Your task to perform on an android device: turn off notifications in google photos Image 0: 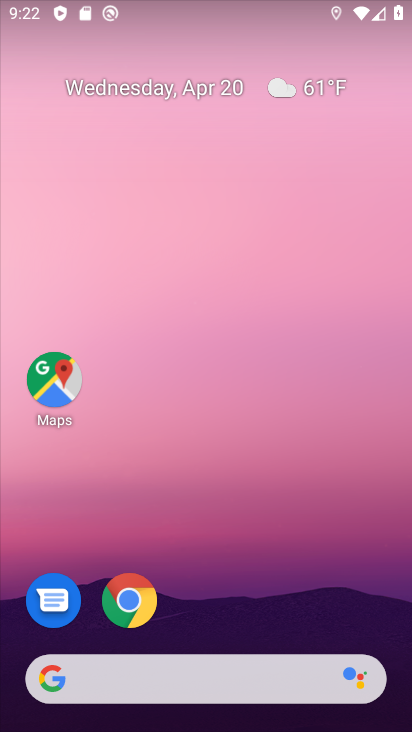
Step 0: drag from (365, 599) to (389, 16)
Your task to perform on an android device: turn off notifications in google photos Image 1: 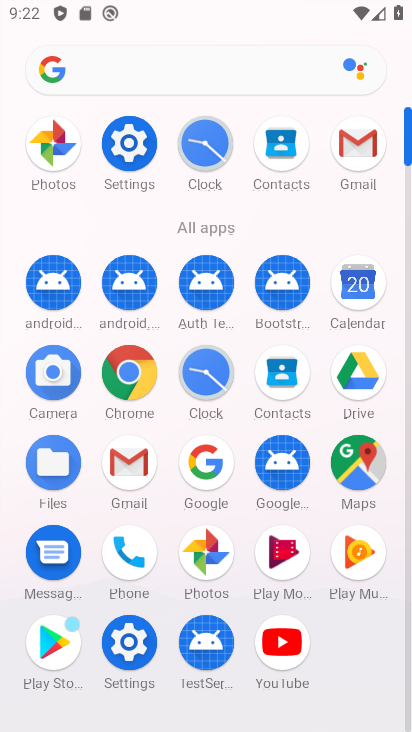
Step 1: click (53, 140)
Your task to perform on an android device: turn off notifications in google photos Image 2: 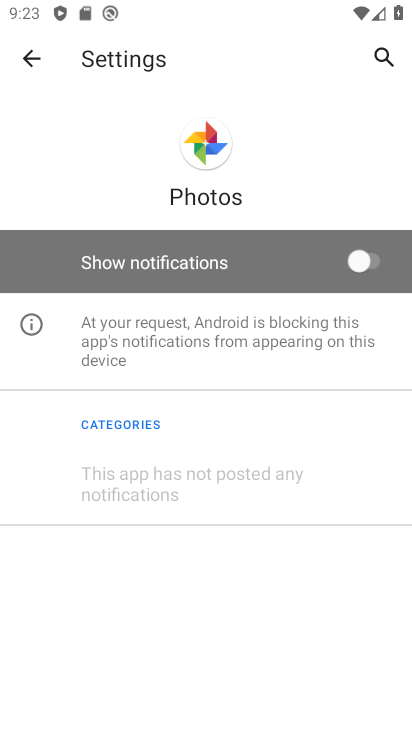
Step 2: task complete